Your task to perform on an android device: all mails in gmail Image 0: 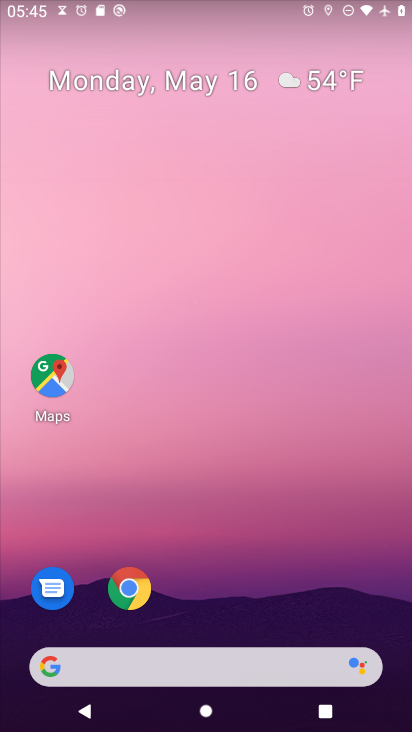
Step 0: drag from (233, 609) to (187, 45)
Your task to perform on an android device: all mails in gmail Image 1: 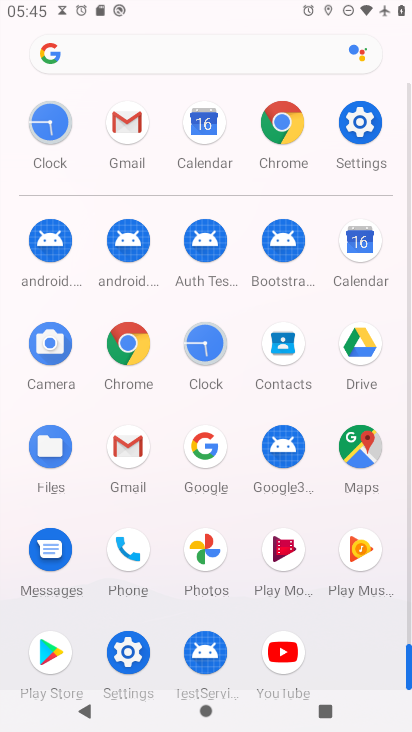
Step 1: drag from (17, 494) to (25, 157)
Your task to perform on an android device: all mails in gmail Image 2: 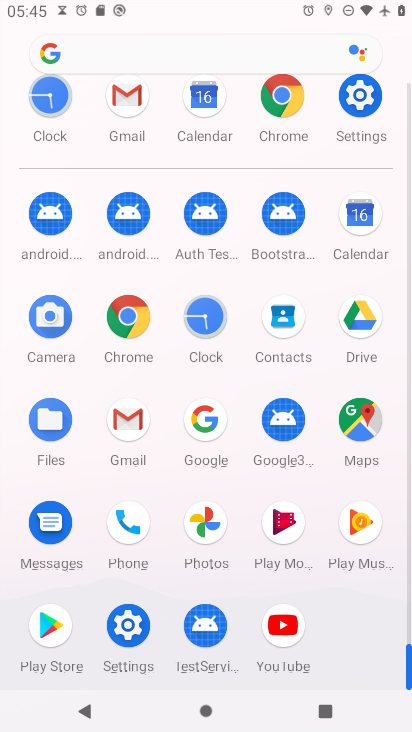
Step 2: click (116, 415)
Your task to perform on an android device: all mails in gmail Image 3: 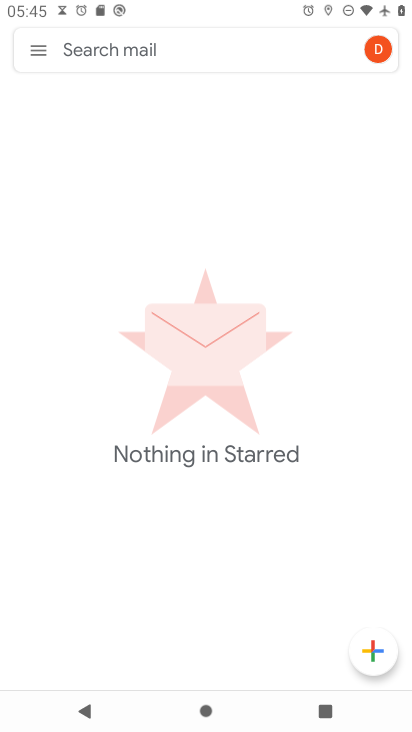
Step 3: click (35, 43)
Your task to perform on an android device: all mails in gmail Image 4: 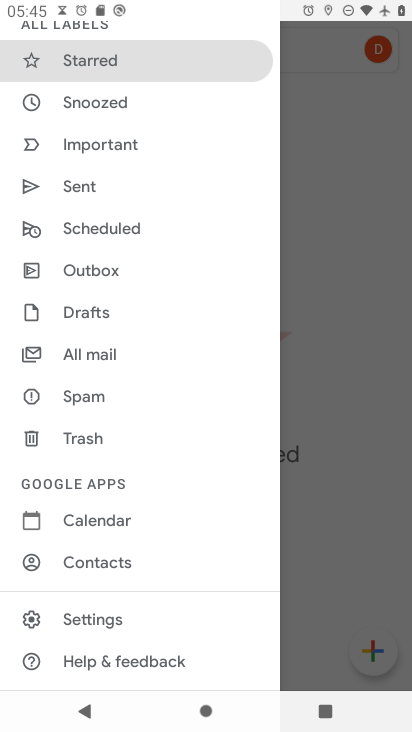
Step 4: click (71, 352)
Your task to perform on an android device: all mails in gmail Image 5: 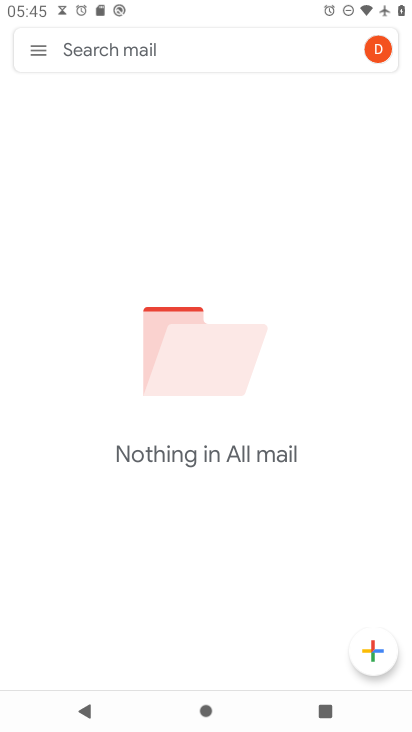
Step 5: task complete